Your task to perform on an android device: Search for "macbook pro 15 inch" on costco, select the first entry, add it to the cart, then select checkout. Image 0: 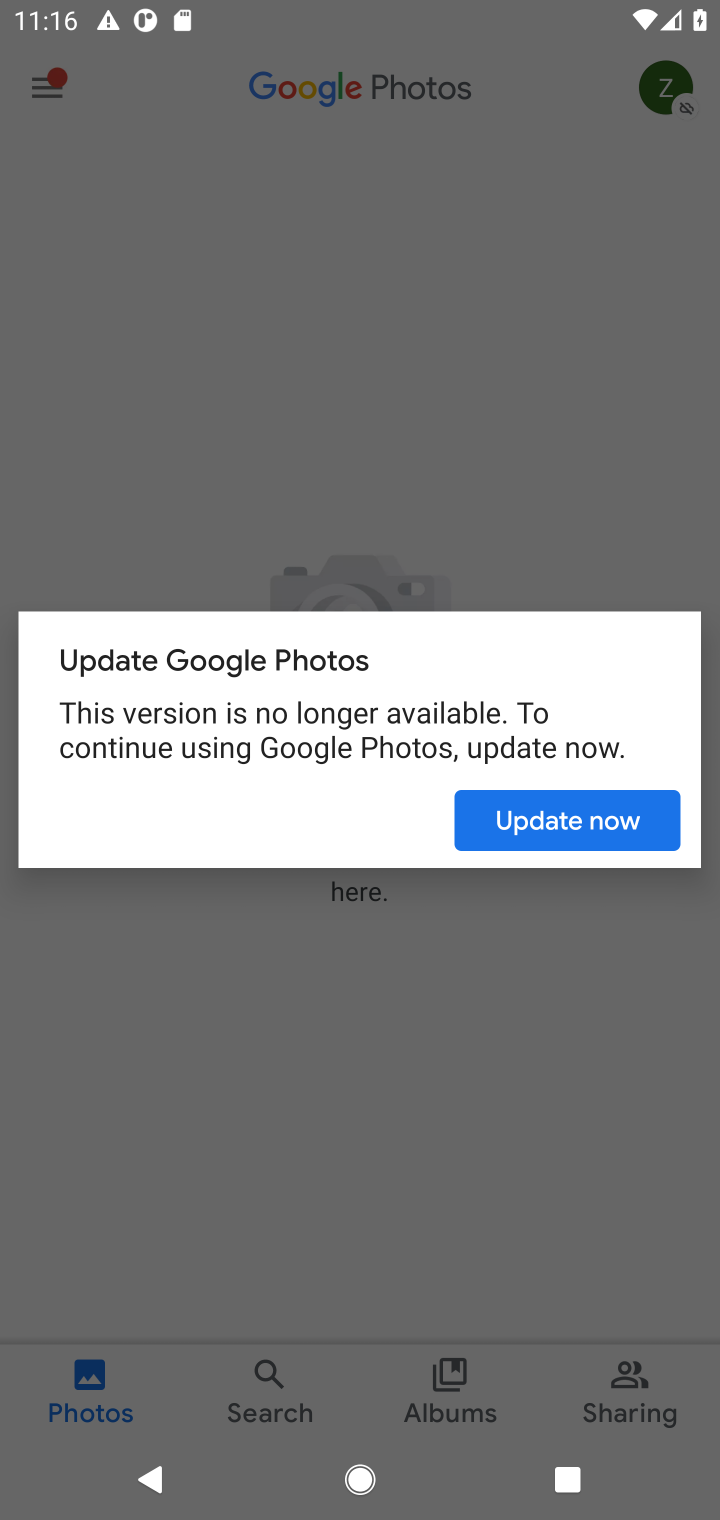
Step 0: press home button
Your task to perform on an android device: Search for "macbook pro 15 inch" on costco, select the first entry, add it to the cart, then select checkout. Image 1: 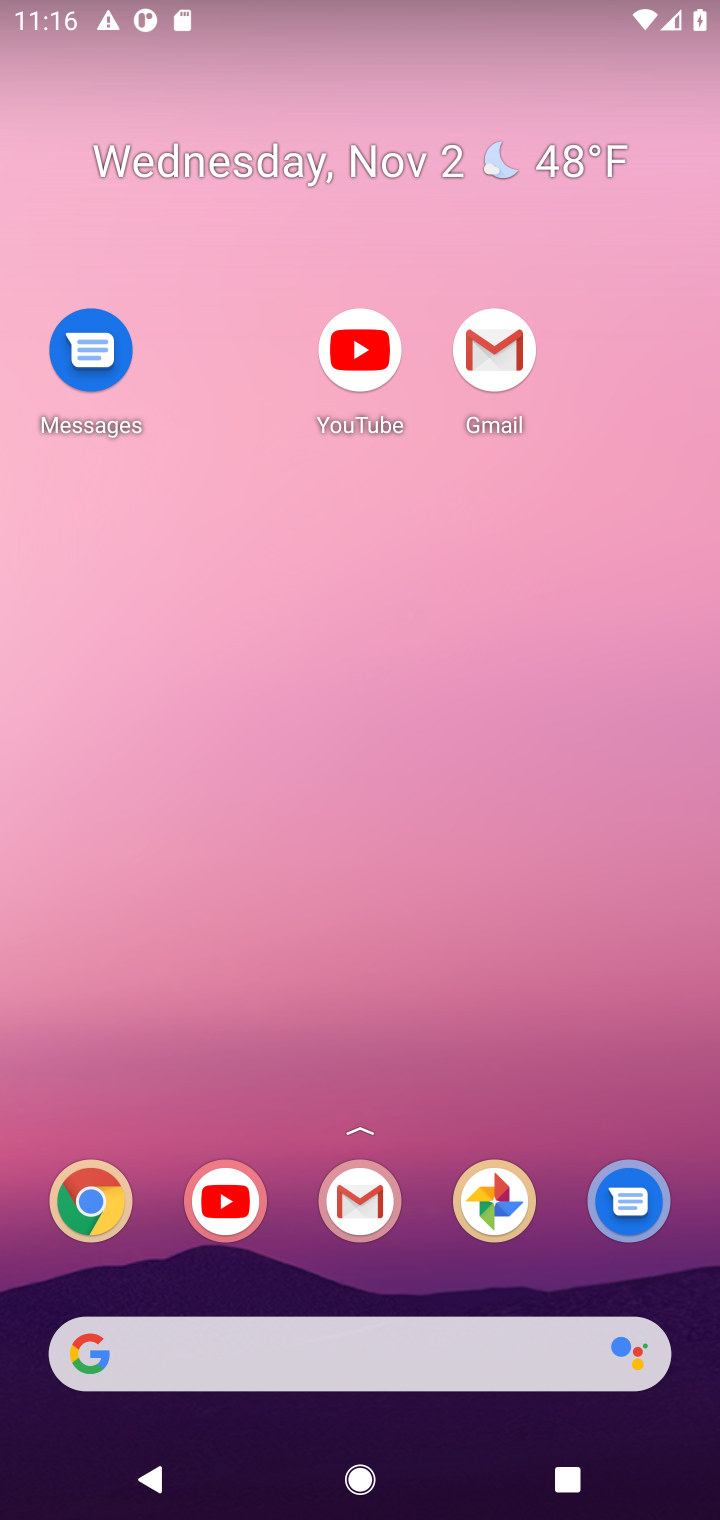
Step 1: drag from (426, 1283) to (357, 341)
Your task to perform on an android device: Search for "macbook pro 15 inch" on costco, select the first entry, add it to the cart, then select checkout. Image 2: 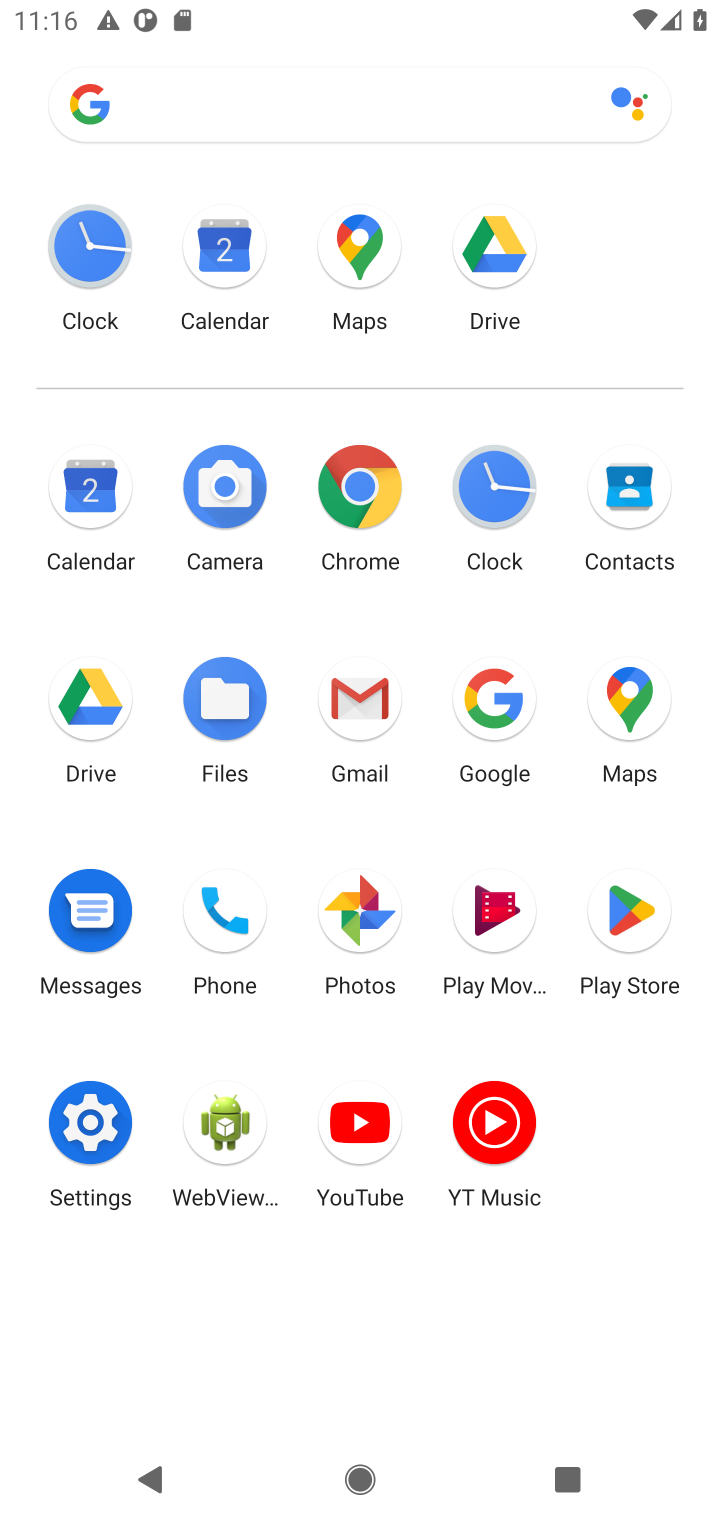
Step 2: click (357, 503)
Your task to perform on an android device: Search for "macbook pro 15 inch" on costco, select the first entry, add it to the cart, then select checkout. Image 3: 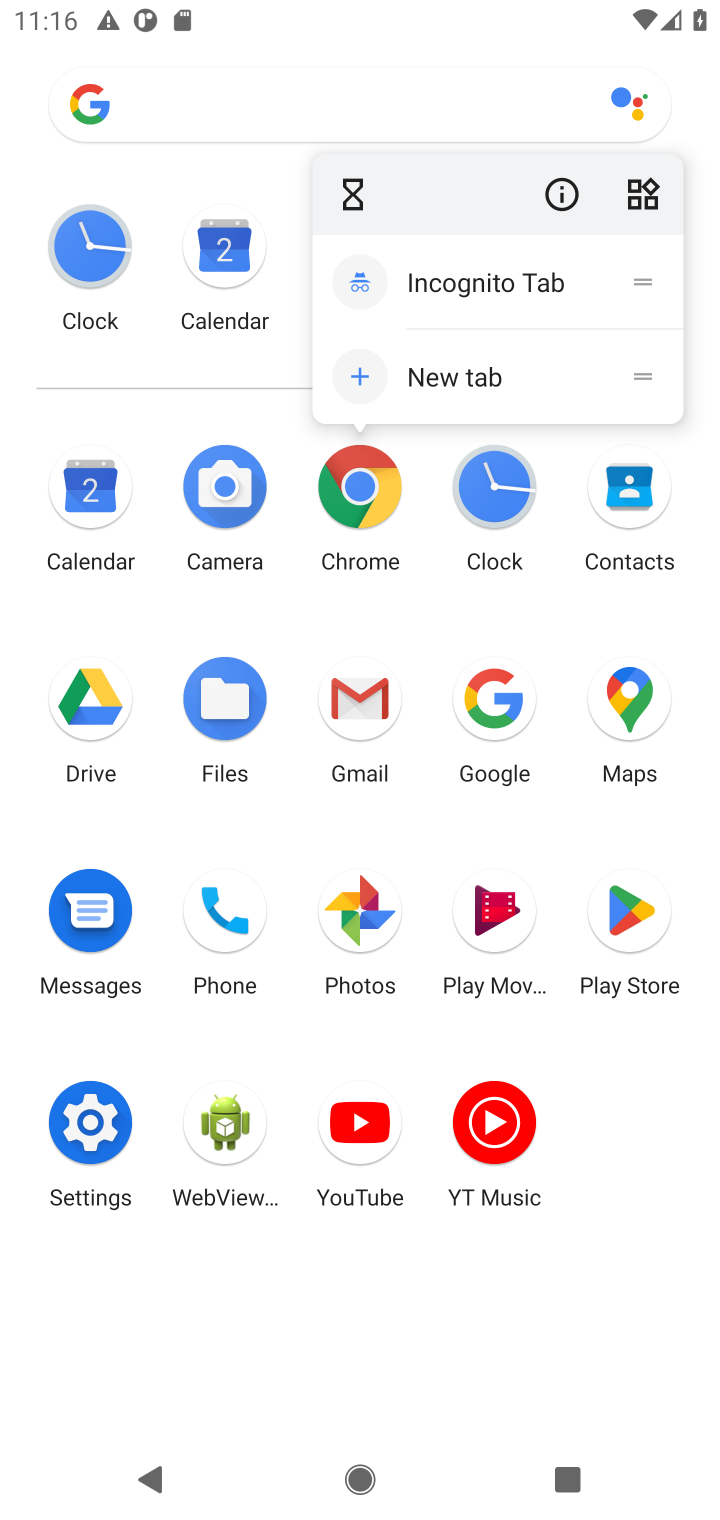
Step 3: click (372, 481)
Your task to perform on an android device: Search for "macbook pro 15 inch" on costco, select the first entry, add it to the cart, then select checkout. Image 4: 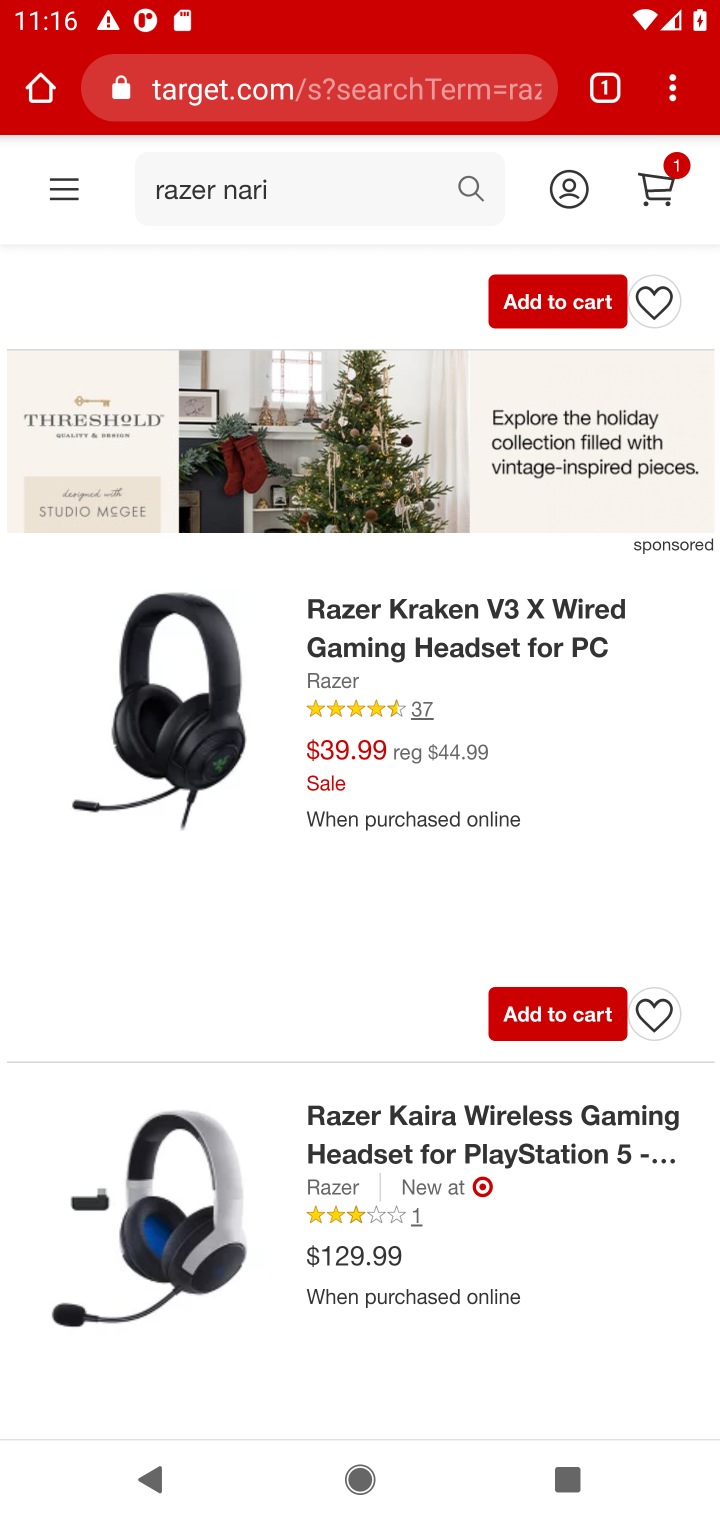
Step 4: click (455, 103)
Your task to perform on an android device: Search for "macbook pro 15 inch" on costco, select the first entry, add it to the cart, then select checkout. Image 5: 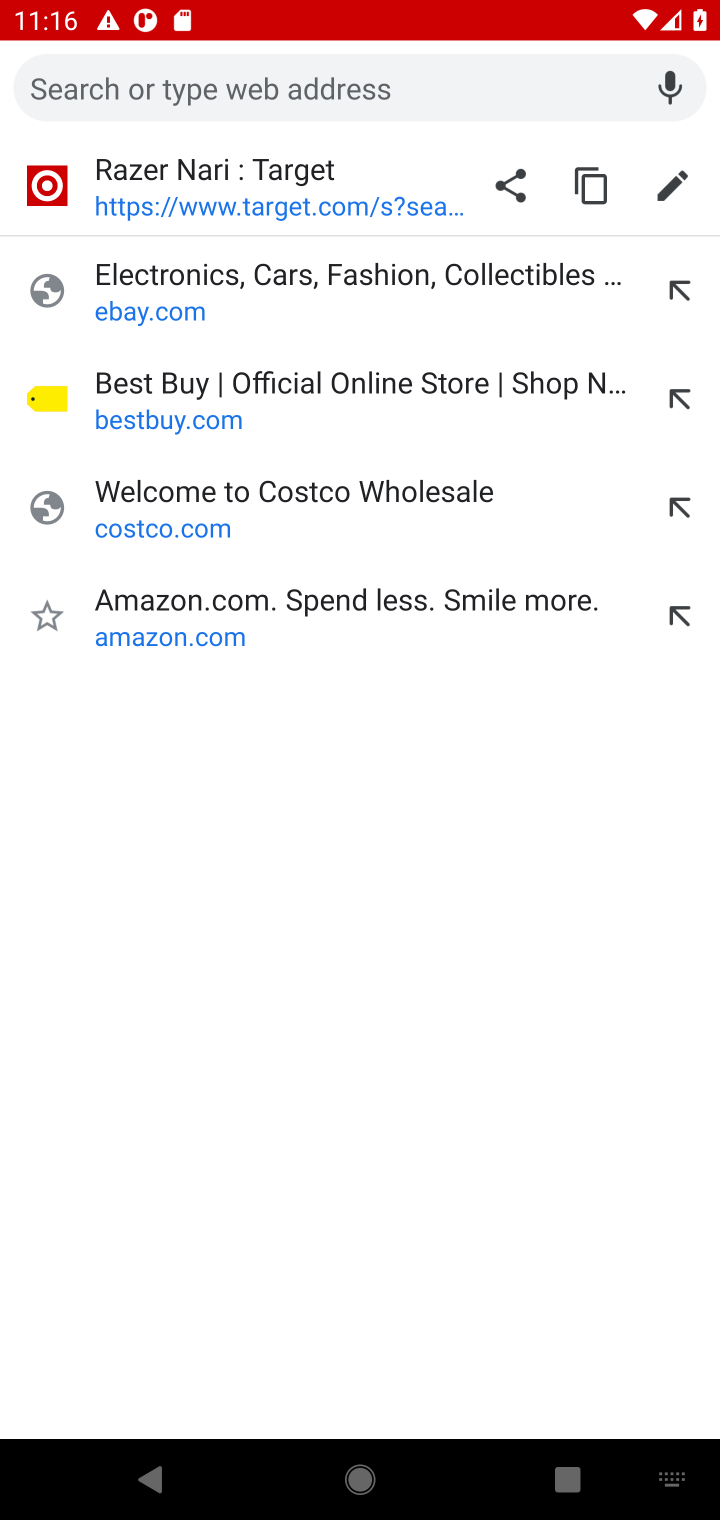
Step 5: type "costco.com"
Your task to perform on an android device: Search for "macbook pro 15 inch" on costco, select the first entry, add it to the cart, then select checkout. Image 6: 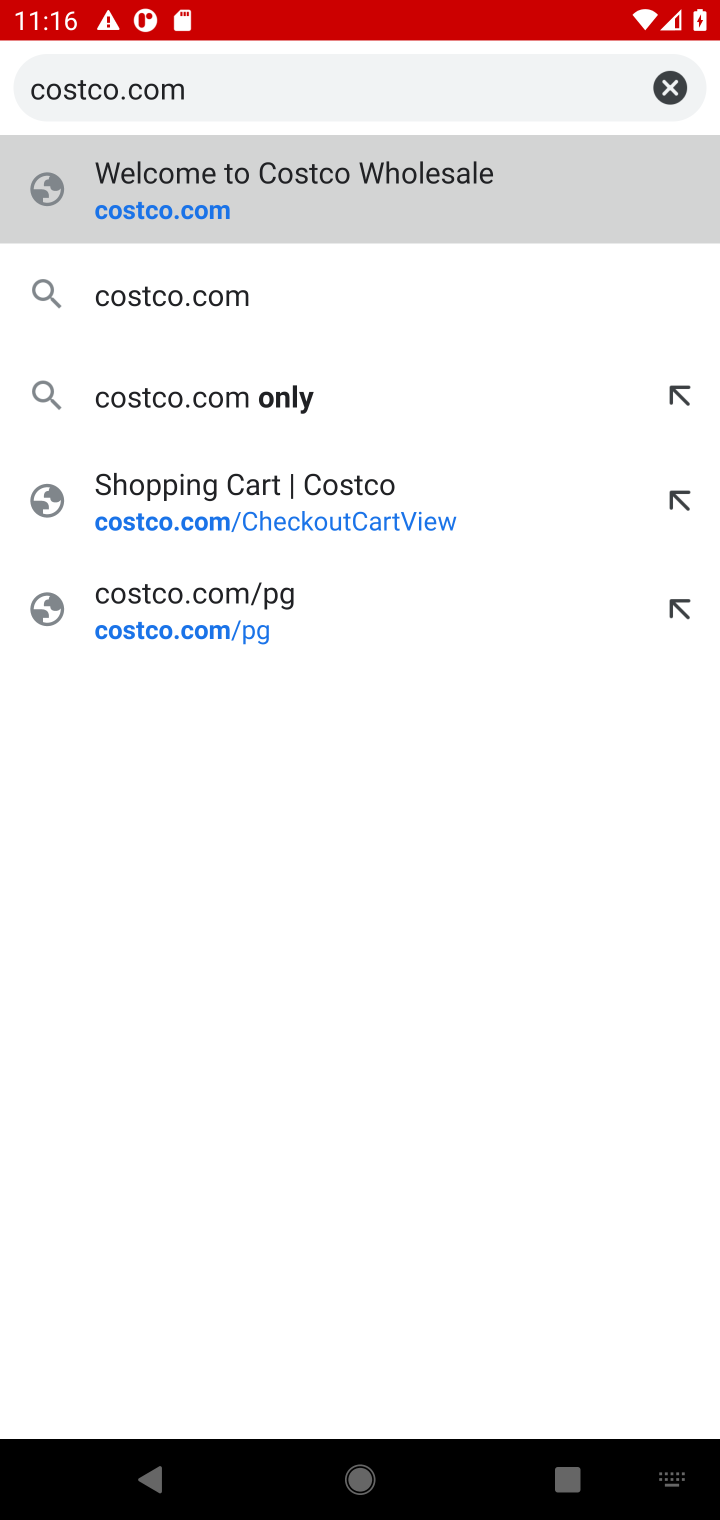
Step 6: press enter
Your task to perform on an android device: Search for "macbook pro 15 inch" on costco, select the first entry, add it to the cart, then select checkout. Image 7: 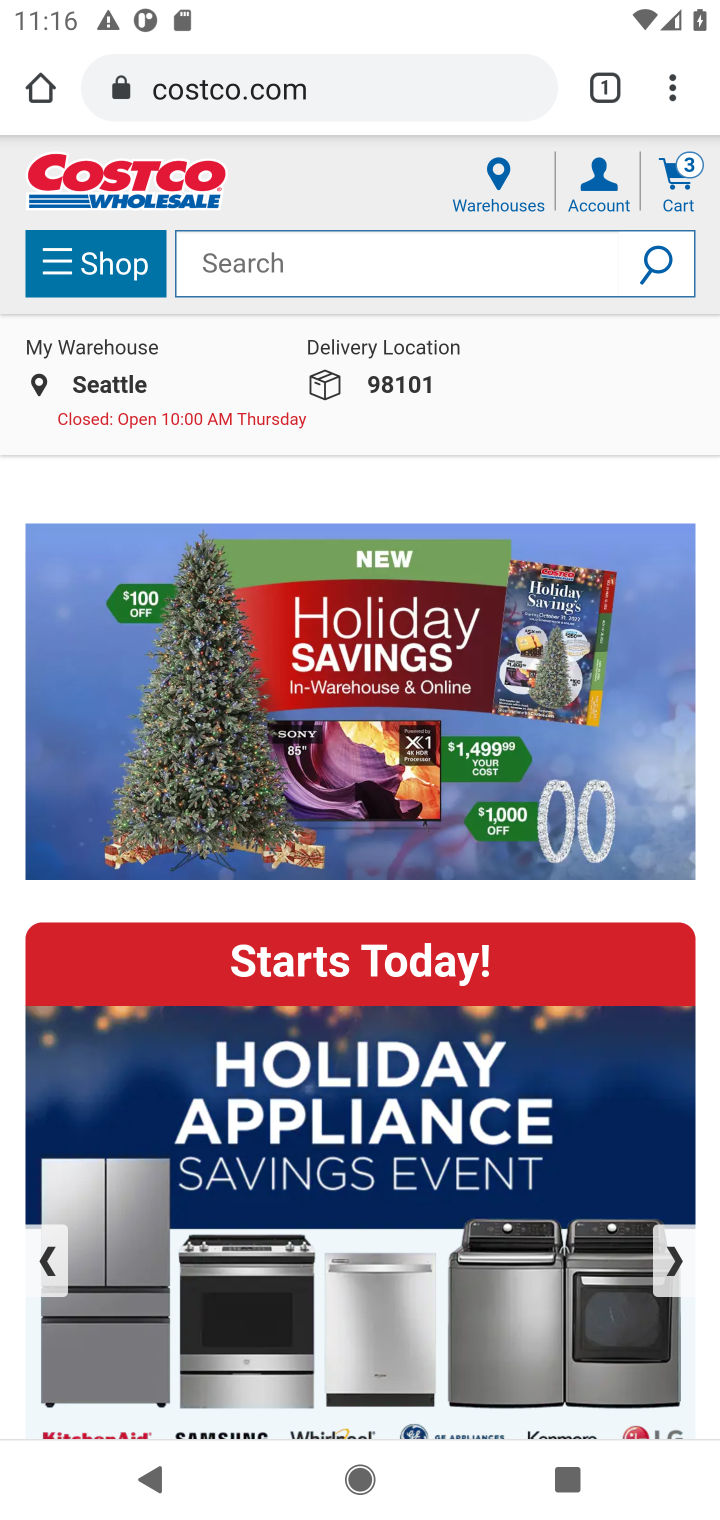
Step 7: press enter
Your task to perform on an android device: Search for "macbook pro 15 inch" on costco, select the first entry, add it to the cart, then select checkout. Image 8: 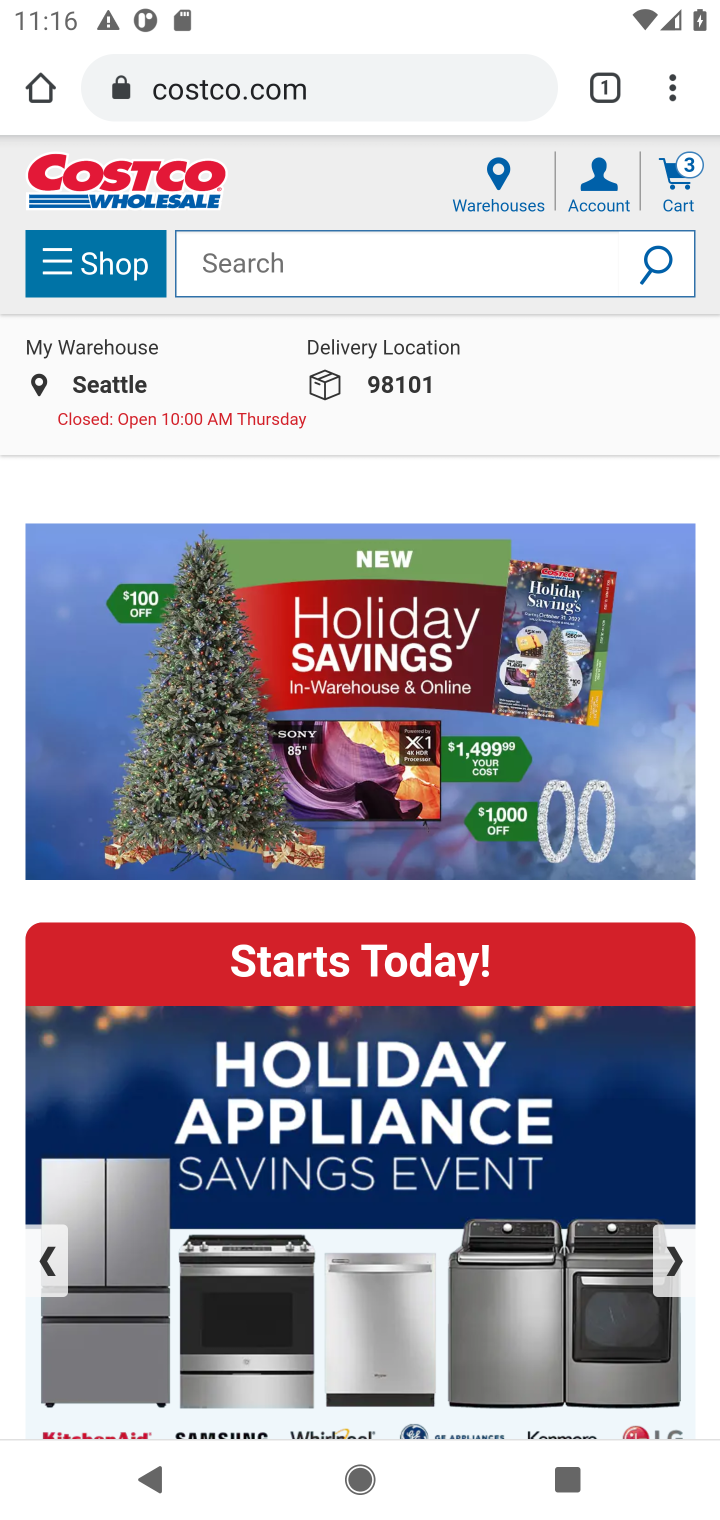
Step 8: click (481, 254)
Your task to perform on an android device: Search for "macbook pro 15 inch" on costco, select the first entry, add it to the cart, then select checkout. Image 9: 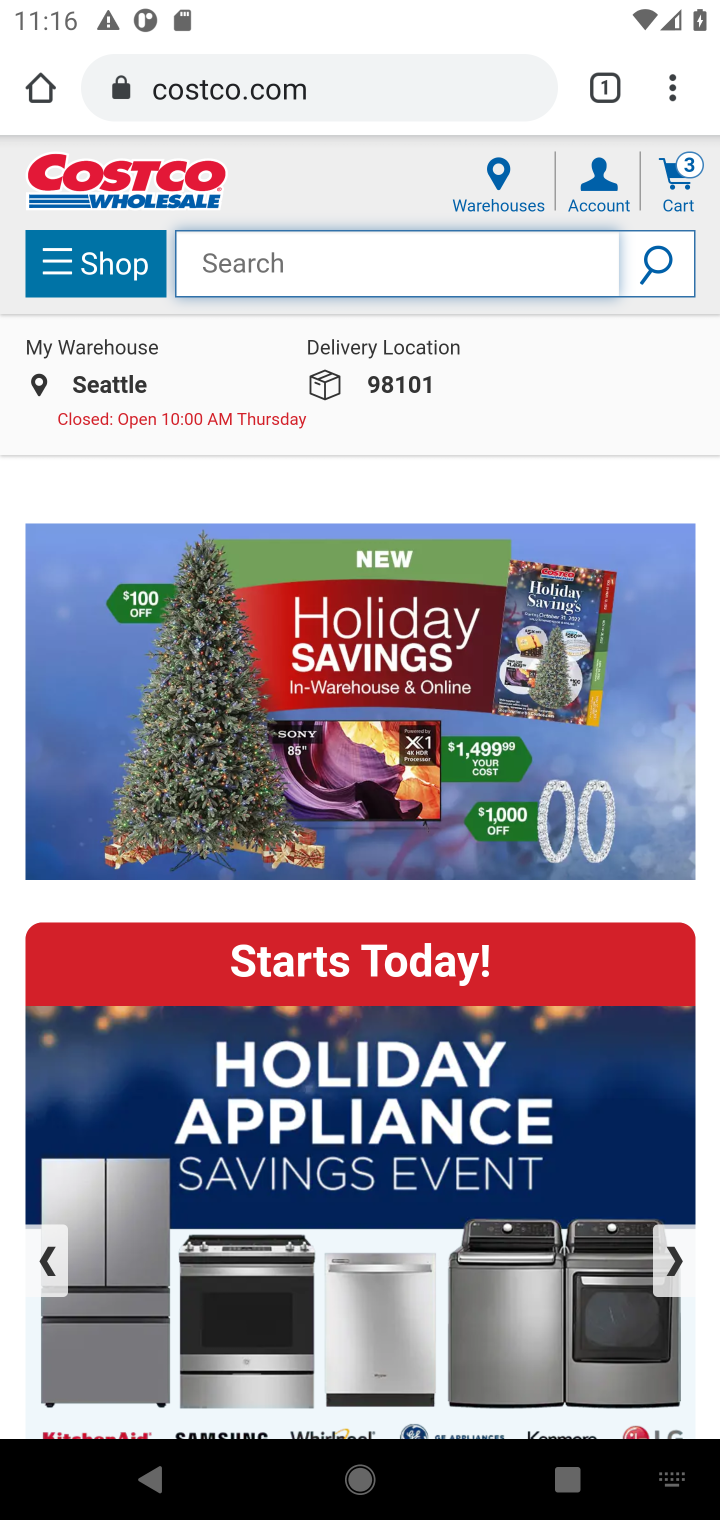
Step 9: type "macbook pro 15 inch"
Your task to perform on an android device: Search for "macbook pro 15 inch" on costco, select the first entry, add it to the cart, then select checkout. Image 10: 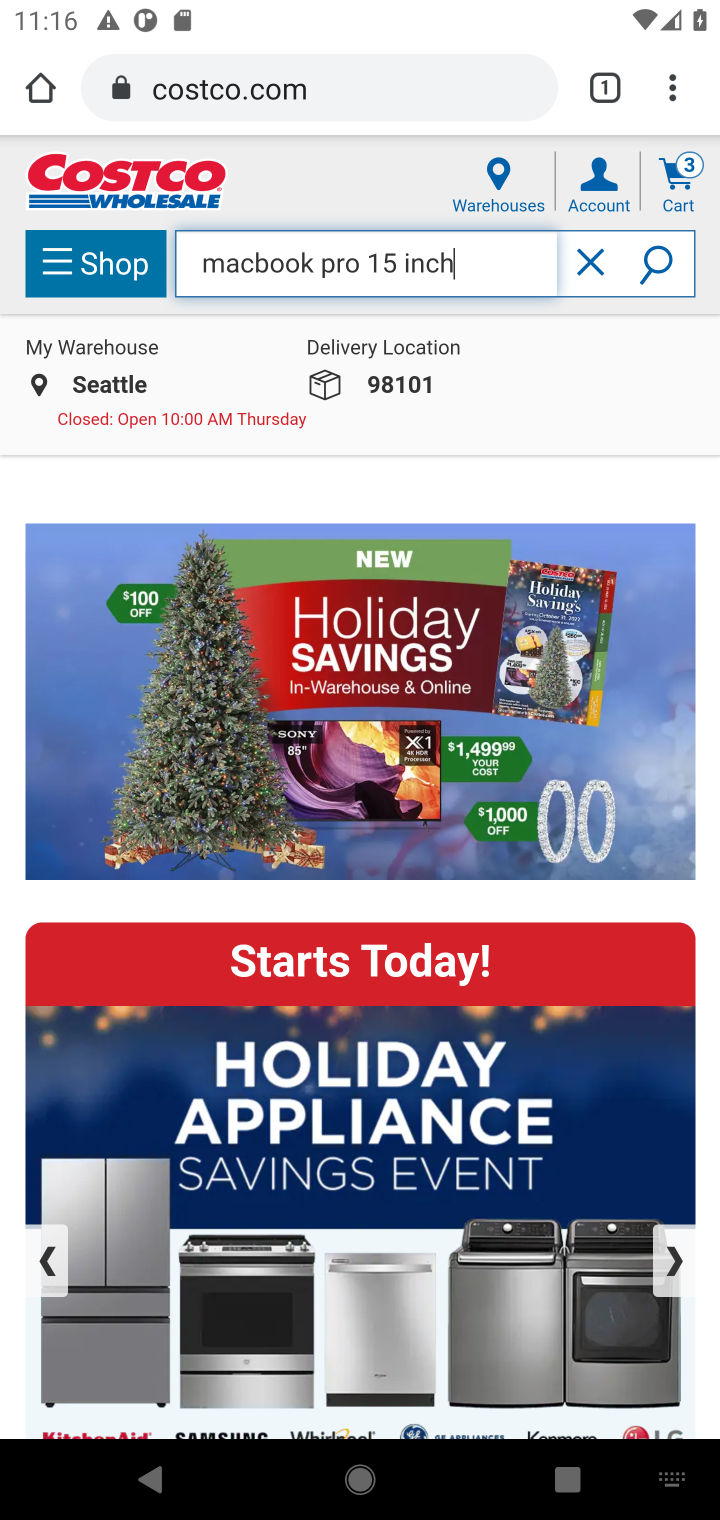
Step 10: press enter
Your task to perform on an android device: Search for "macbook pro 15 inch" on costco, select the first entry, add it to the cart, then select checkout. Image 11: 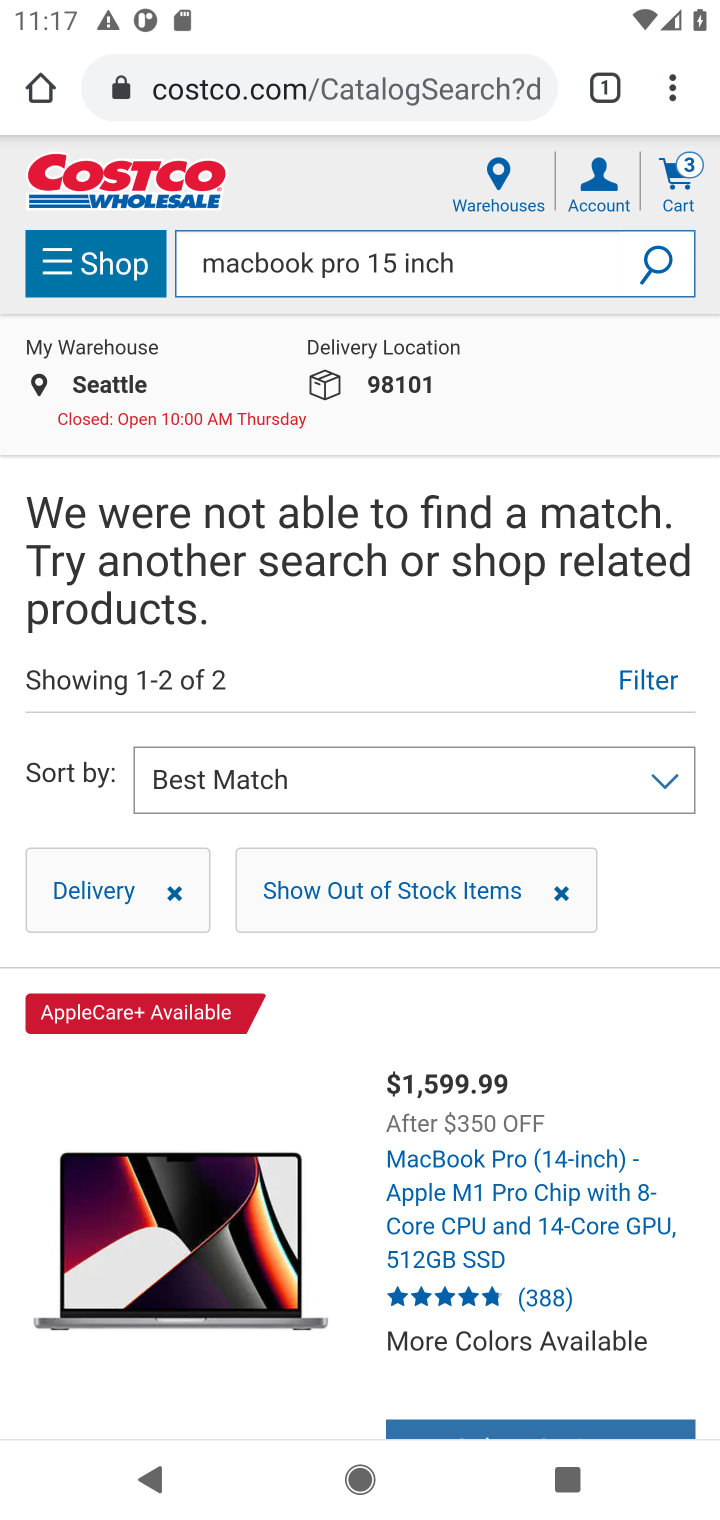
Step 11: task complete